Your task to perform on an android device: move an email to a new category in the gmail app Image 0: 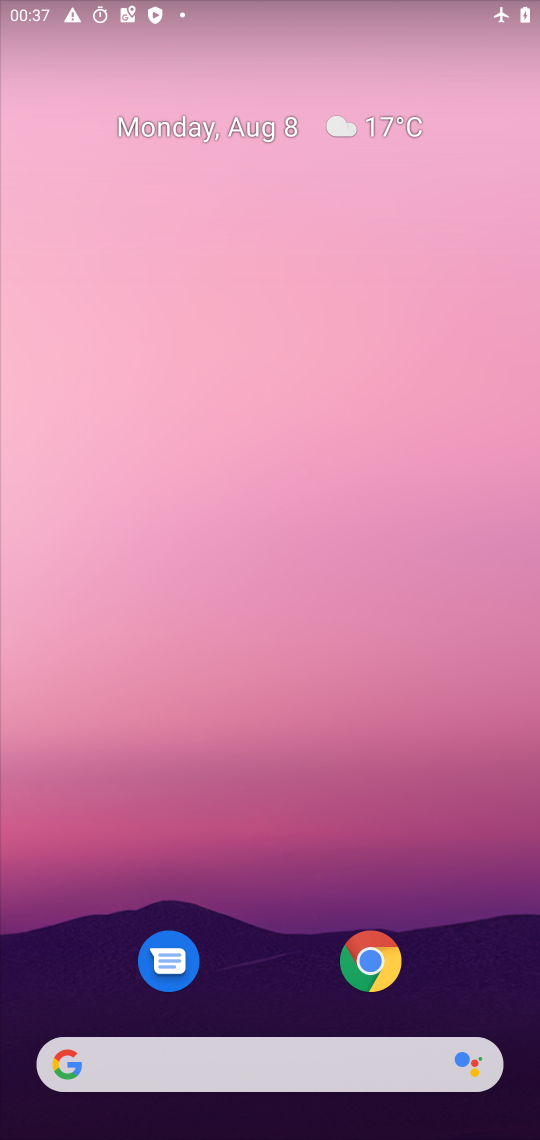
Step 0: drag from (216, 1054) to (325, 275)
Your task to perform on an android device: move an email to a new category in the gmail app Image 1: 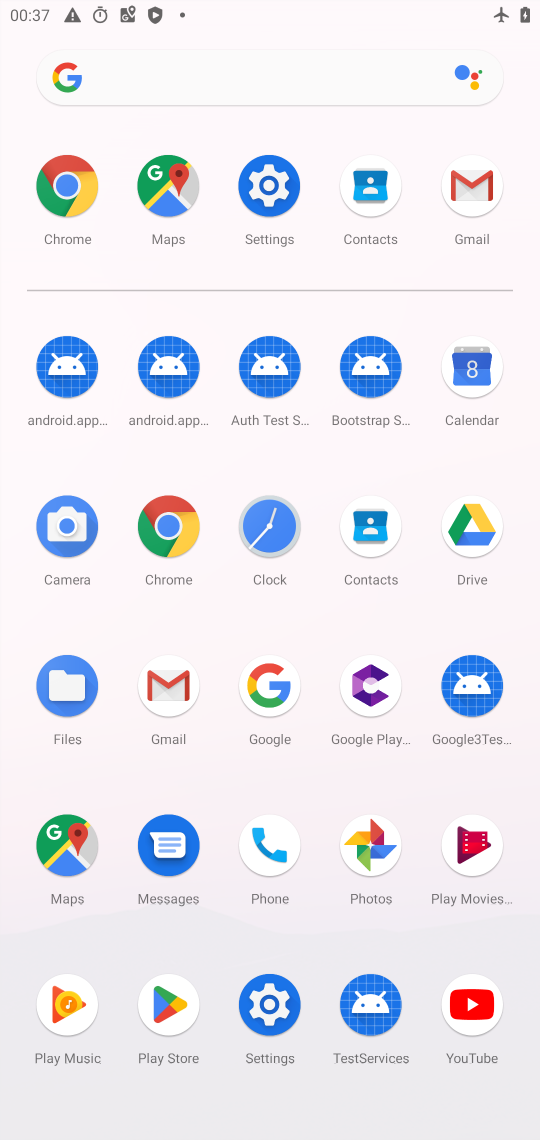
Step 1: click (175, 662)
Your task to perform on an android device: move an email to a new category in the gmail app Image 2: 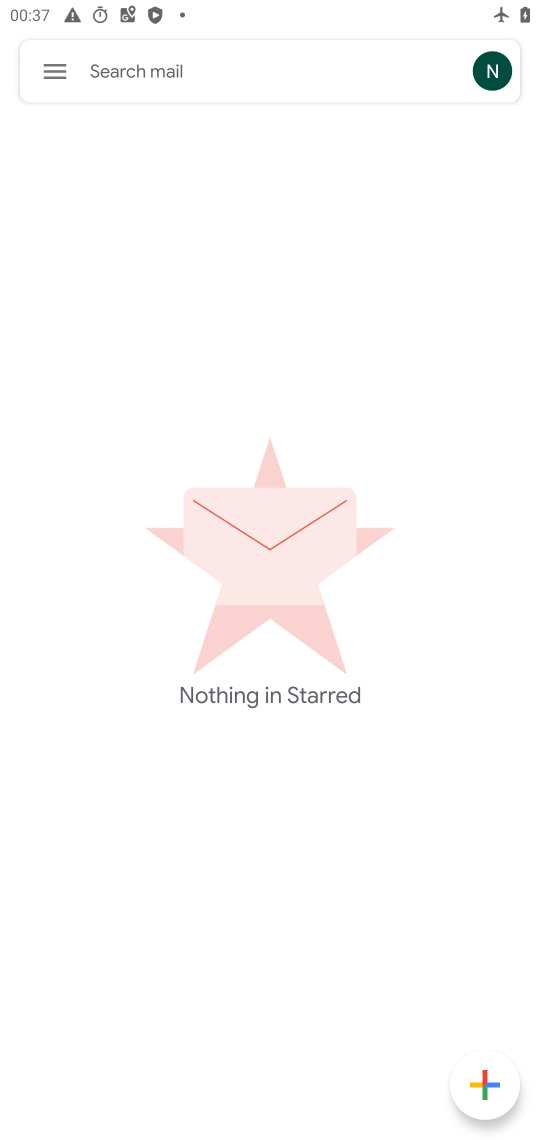
Step 2: click (43, 69)
Your task to perform on an android device: move an email to a new category in the gmail app Image 3: 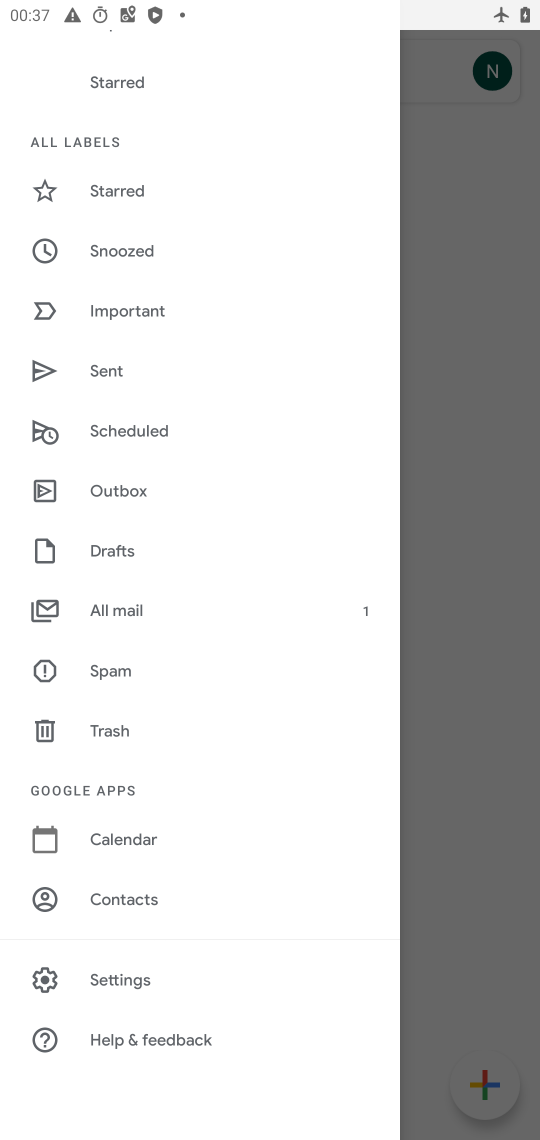
Step 3: drag from (366, 312) to (185, 478)
Your task to perform on an android device: move an email to a new category in the gmail app Image 4: 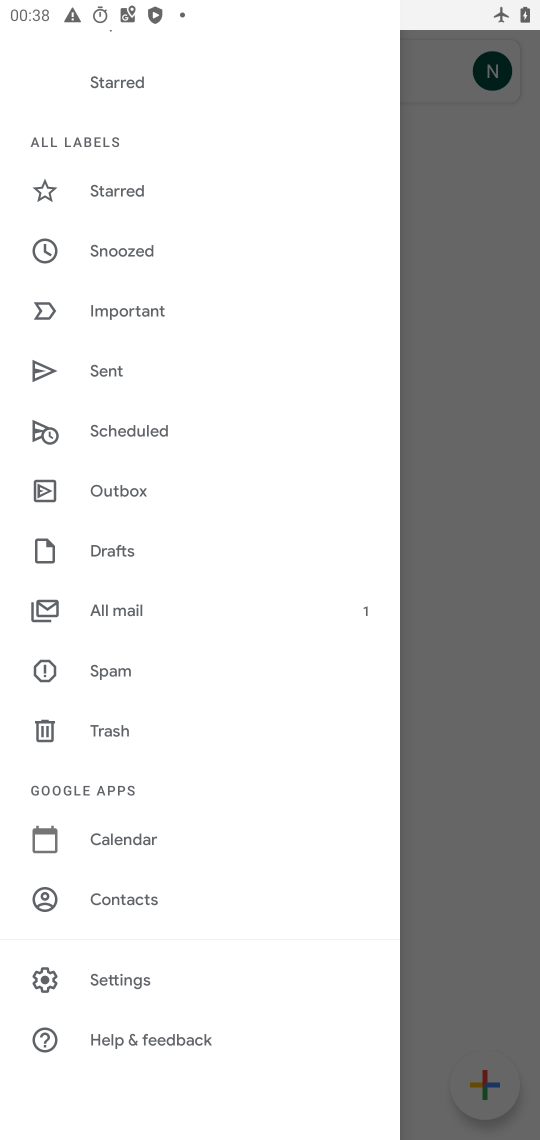
Step 4: drag from (335, 465) to (352, 530)
Your task to perform on an android device: move an email to a new category in the gmail app Image 5: 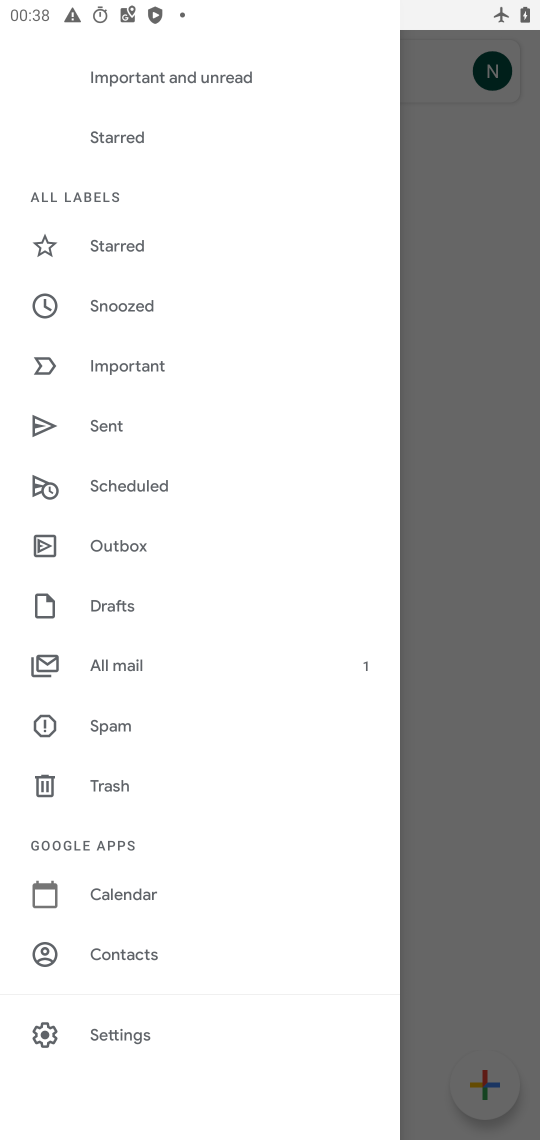
Step 5: drag from (337, 227) to (445, 986)
Your task to perform on an android device: move an email to a new category in the gmail app Image 6: 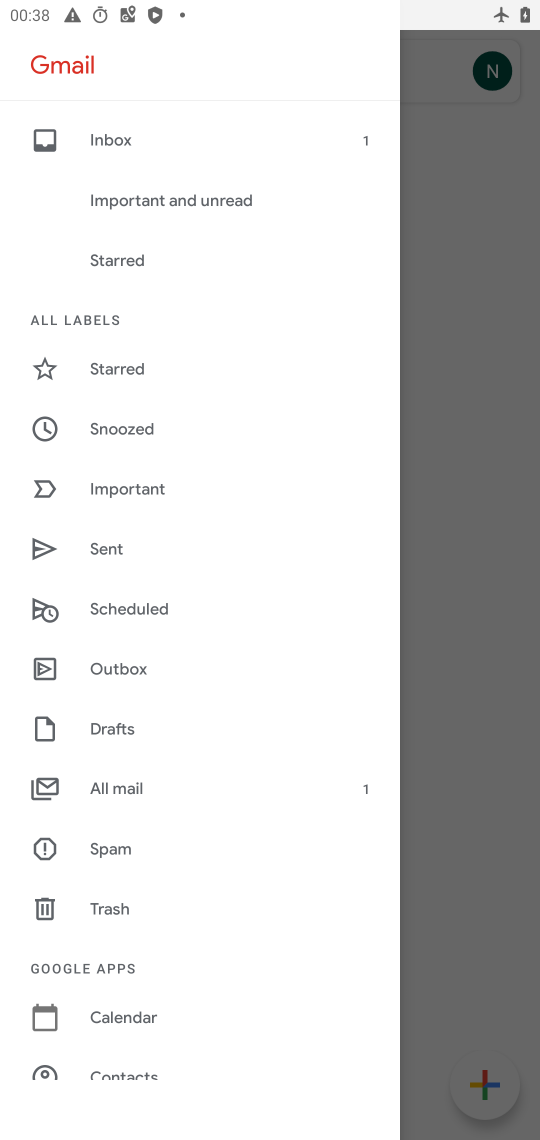
Step 6: click (133, 133)
Your task to perform on an android device: move an email to a new category in the gmail app Image 7: 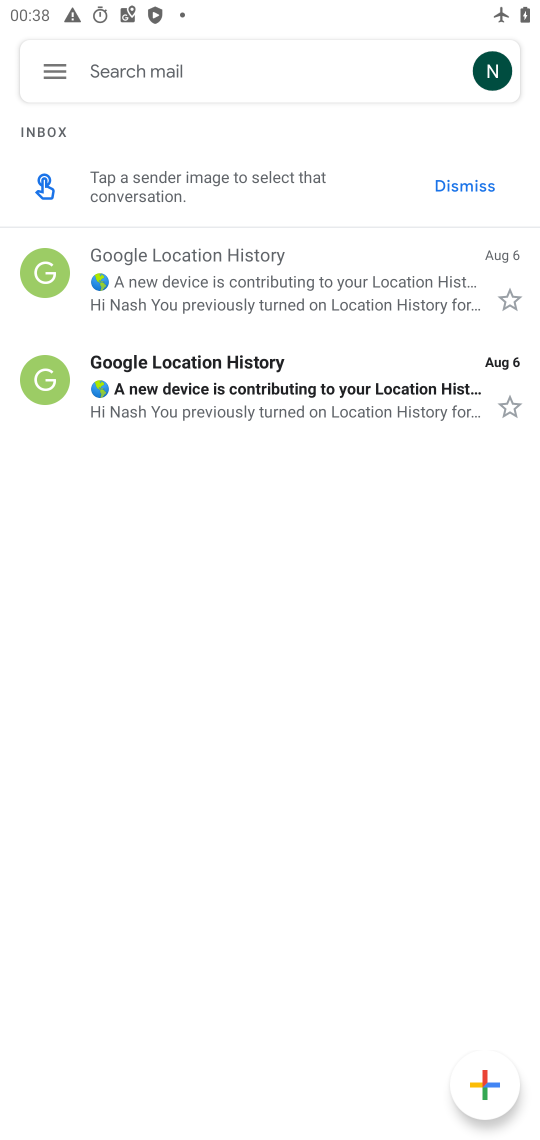
Step 7: click (251, 286)
Your task to perform on an android device: move an email to a new category in the gmail app Image 8: 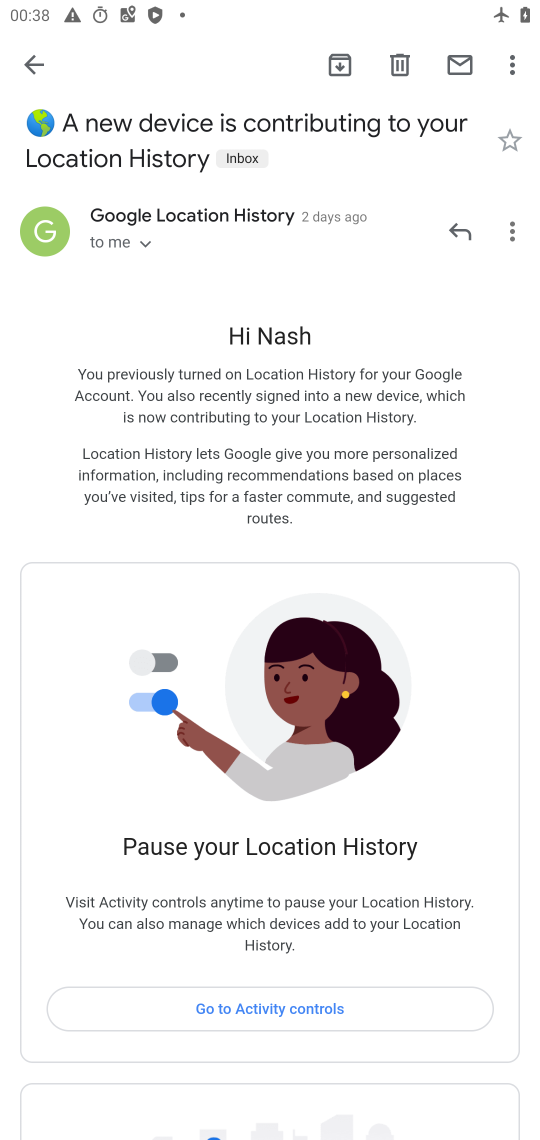
Step 8: click (511, 219)
Your task to perform on an android device: move an email to a new category in the gmail app Image 9: 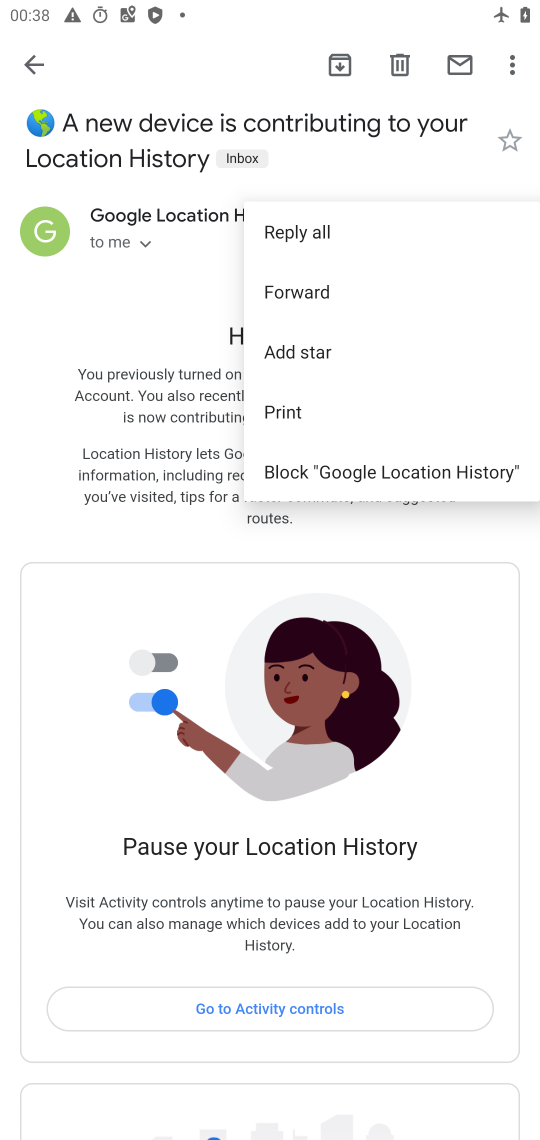
Step 9: click (532, 802)
Your task to perform on an android device: move an email to a new category in the gmail app Image 10: 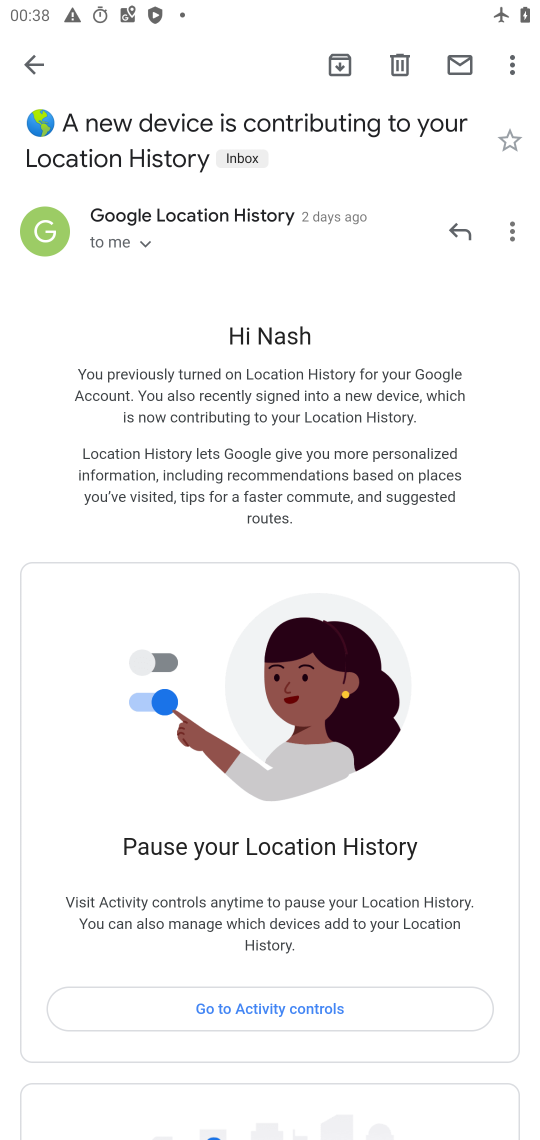
Step 10: click (514, 63)
Your task to perform on an android device: move an email to a new category in the gmail app Image 11: 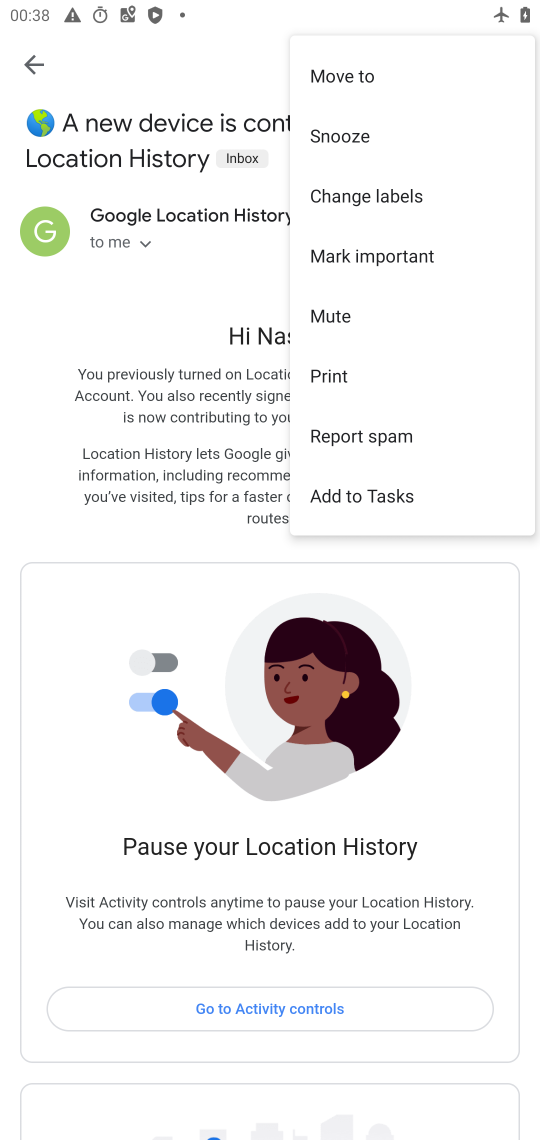
Step 11: click (358, 190)
Your task to perform on an android device: move an email to a new category in the gmail app Image 12: 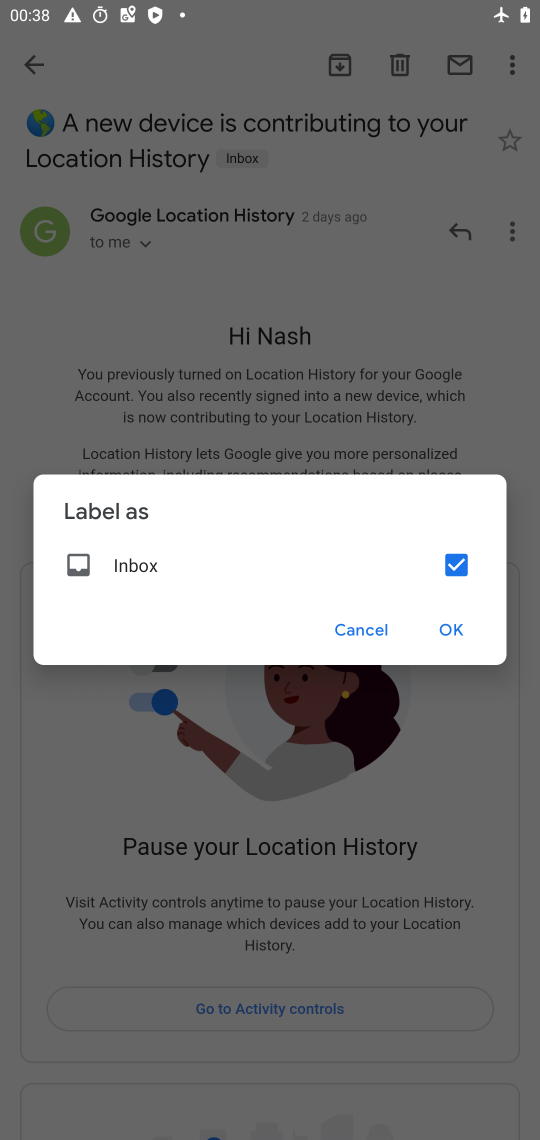
Step 12: click (454, 625)
Your task to perform on an android device: move an email to a new category in the gmail app Image 13: 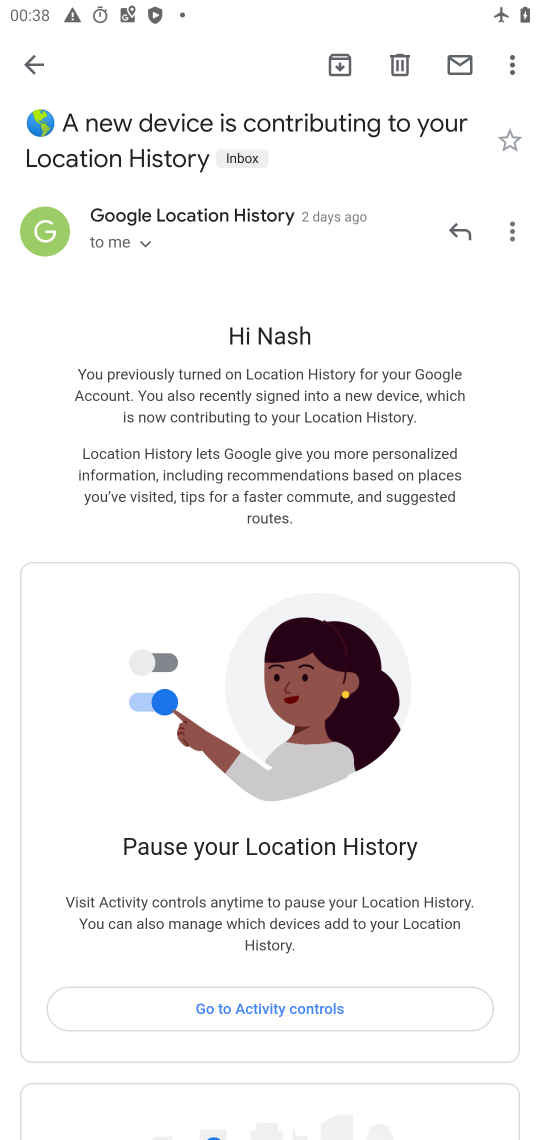
Step 13: task complete